Your task to perform on an android device: What's the weather? Image 0: 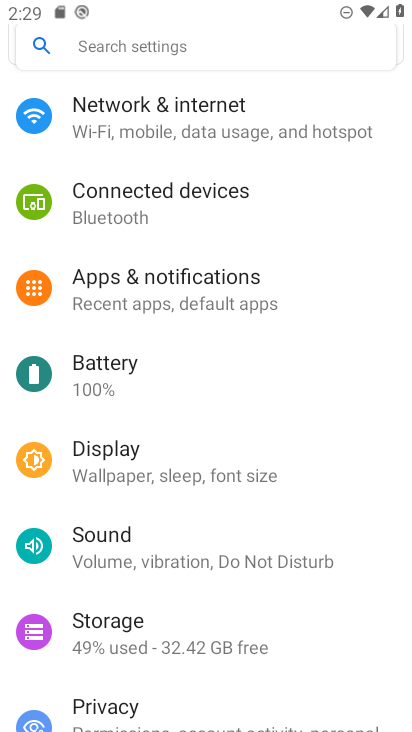
Step 0: press home button
Your task to perform on an android device: What's the weather? Image 1: 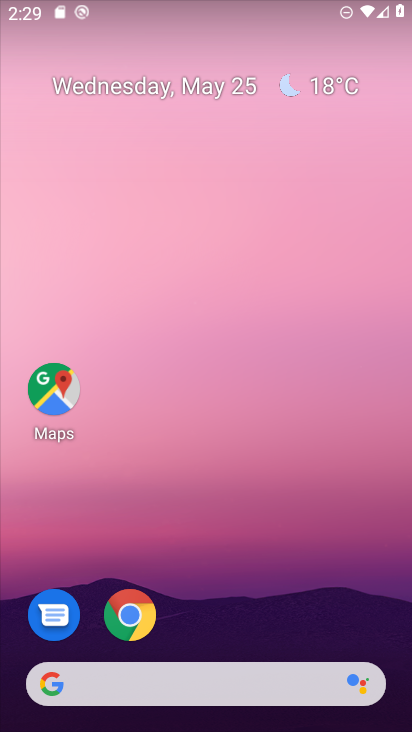
Step 1: click (251, 684)
Your task to perform on an android device: What's the weather? Image 2: 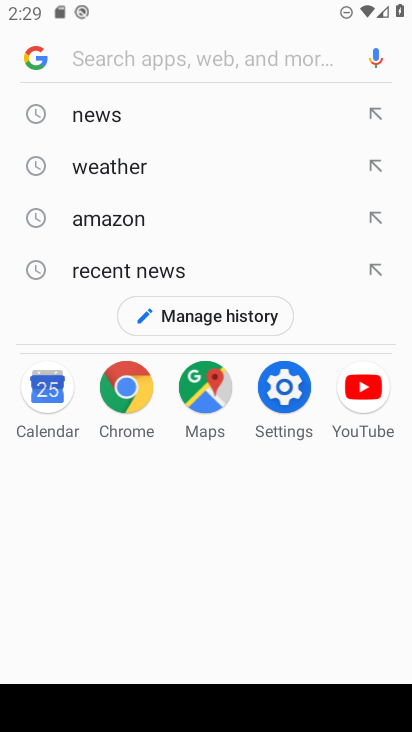
Step 2: click (101, 167)
Your task to perform on an android device: What's the weather? Image 3: 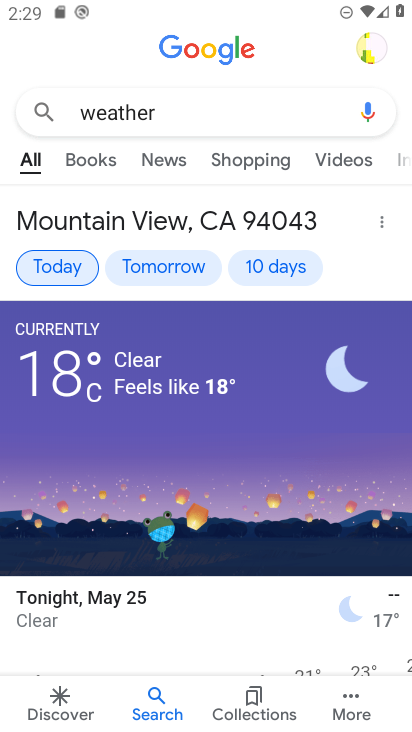
Step 3: click (62, 271)
Your task to perform on an android device: What's the weather? Image 4: 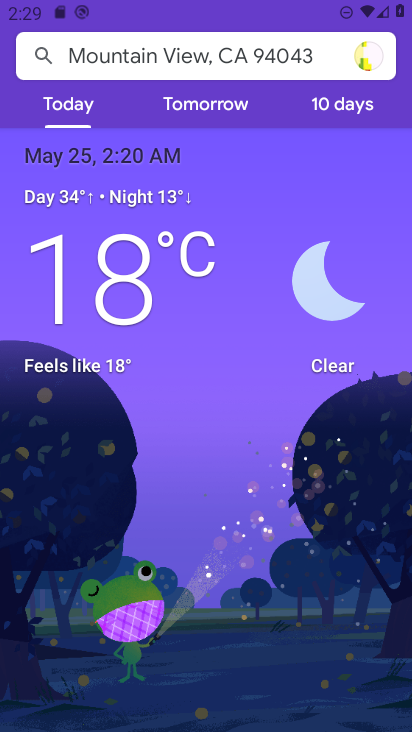
Step 4: task complete